Your task to perform on an android device: Show me recent news Image 0: 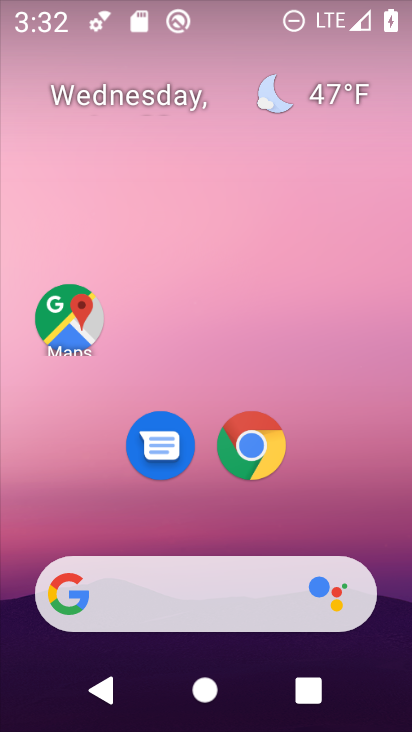
Step 0: press home button
Your task to perform on an android device: Show me recent news Image 1: 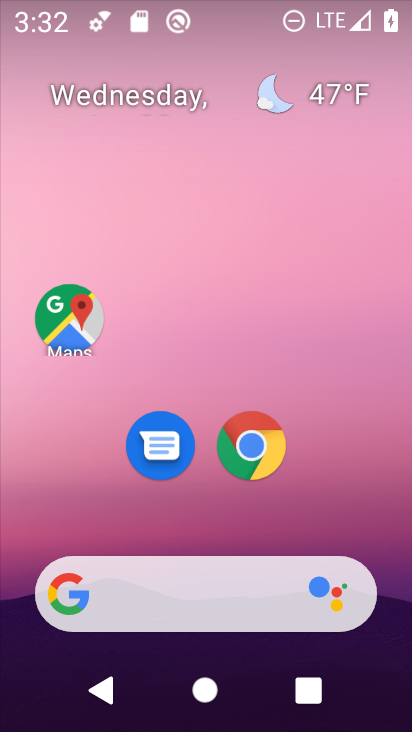
Step 1: drag from (308, 511) to (268, 58)
Your task to perform on an android device: Show me recent news Image 2: 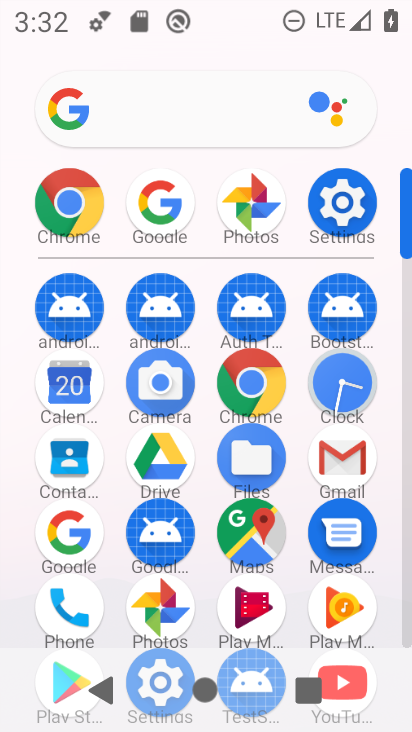
Step 2: drag from (299, 556) to (295, 284)
Your task to perform on an android device: Show me recent news Image 3: 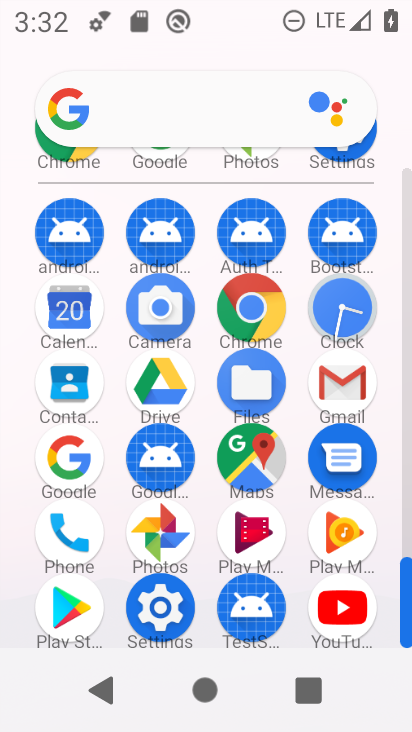
Step 3: click (69, 456)
Your task to perform on an android device: Show me recent news Image 4: 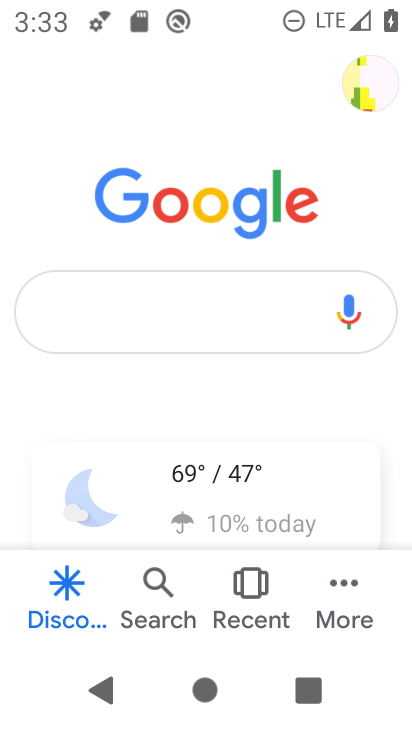
Step 4: click (194, 303)
Your task to perform on an android device: Show me recent news Image 5: 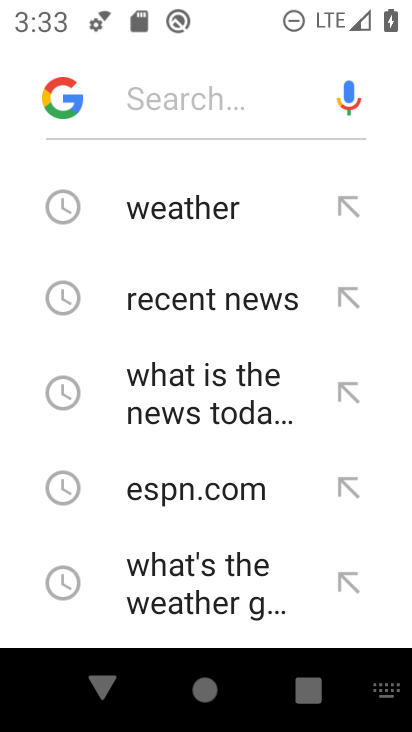
Step 5: click (194, 303)
Your task to perform on an android device: Show me recent news Image 6: 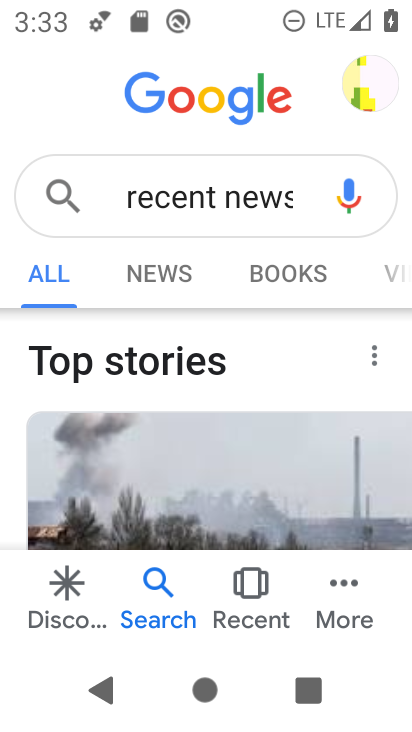
Step 6: task complete